Your task to perform on an android device: Show me recent news Image 0: 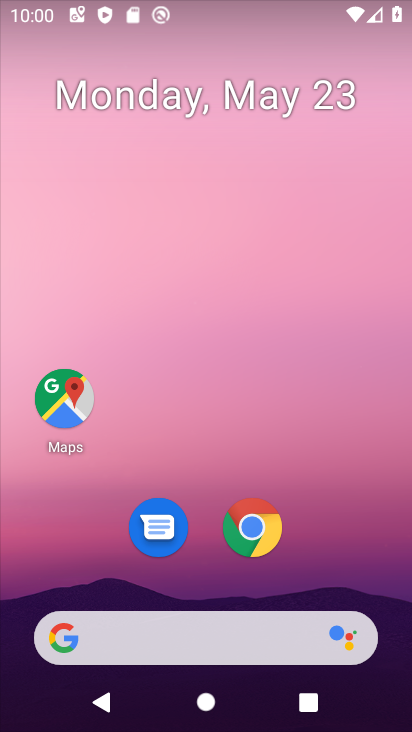
Step 0: drag from (19, 296) to (190, 270)
Your task to perform on an android device: Show me recent news Image 1: 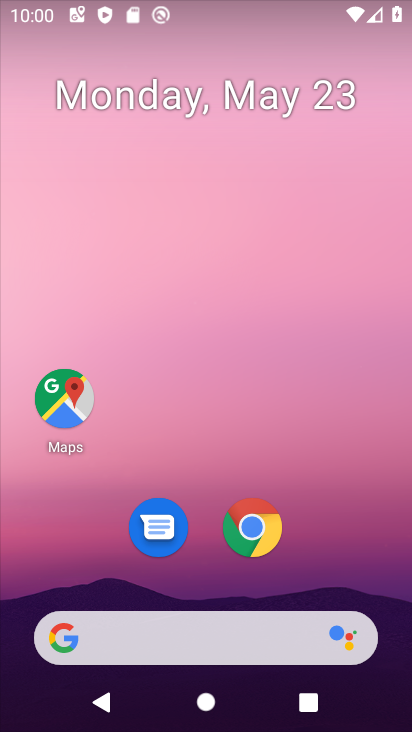
Step 1: task complete